Your task to perform on an android device: toggle data saver in the chrome app Image 0: 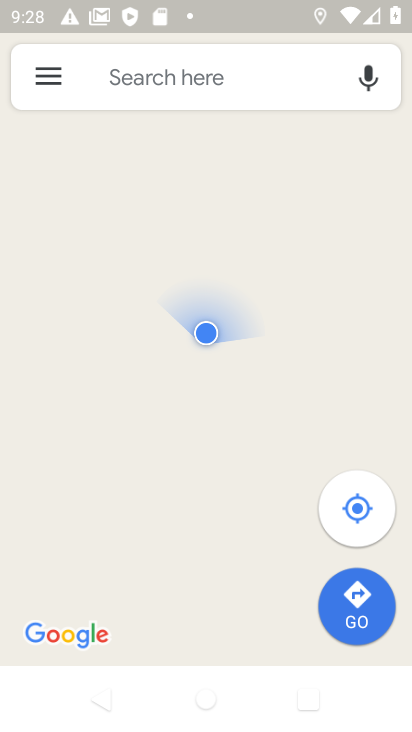
Step 0: press home button
Your task to perform on an android device: toggle data saver in the chrome app Image 1: 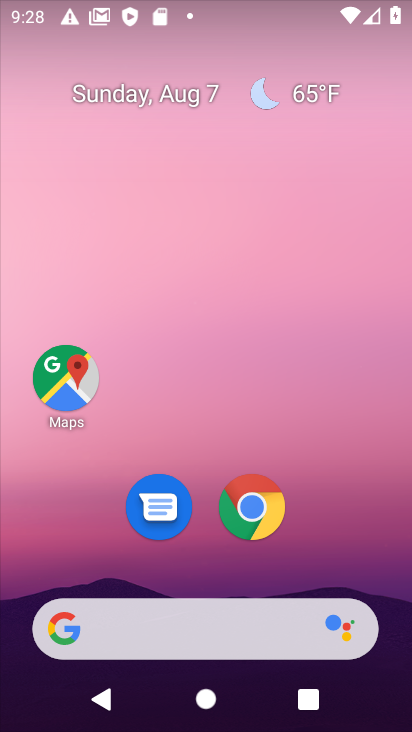
Step 1: drag from (367, 496) to (285, 123)
Your task to perform on an android device: toggle data saver in the chrome app Image 2: 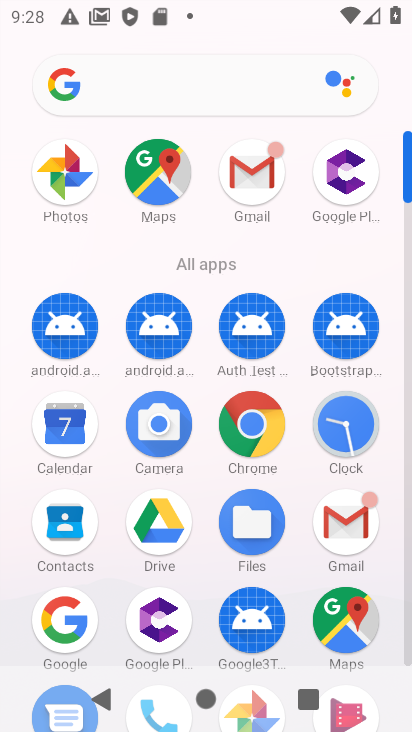
Step 2: click (249, 433)
Your task to perform on an android device: toggle data saver in the chrome app Image 3: 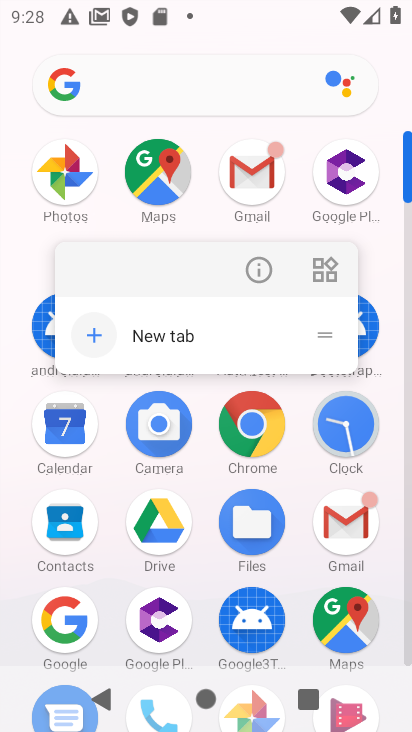
Step 3: click (249, 433)
Your task to perform on an android device: toggle data saver in the chrome app Image 4: 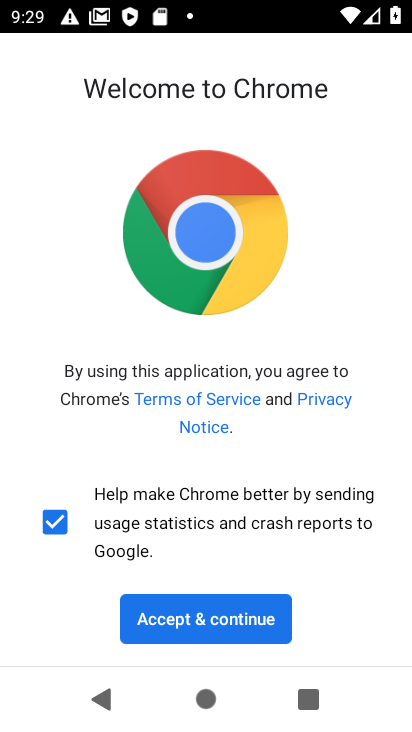
Step 4: click (251, 621)
Your task to perform on an android device: toggle data saver in the chrome app Image 5: 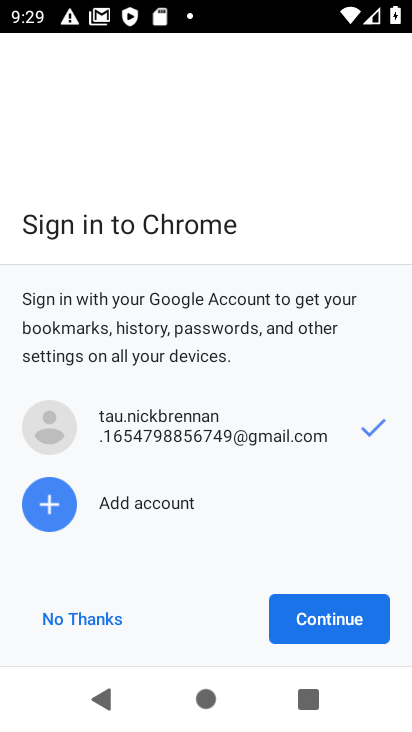
Step 5: click (352, 630)
Your task to perform on an android device: toggle data saver in the chrome app Image 6: 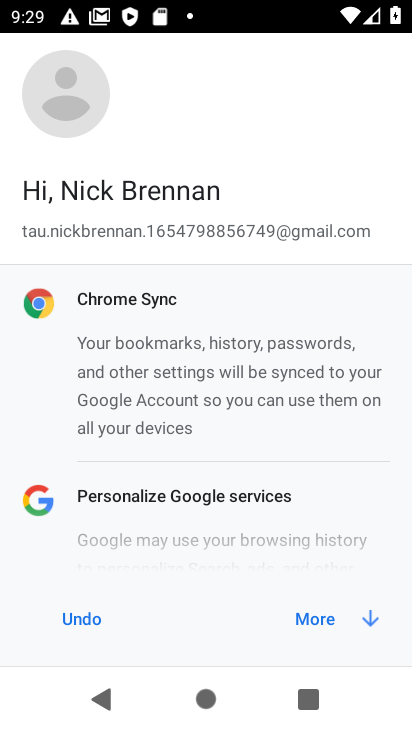
Step 6: click (352, 627)
Your task to perform on an android device: toggle data saver in the chrome app Image 7: 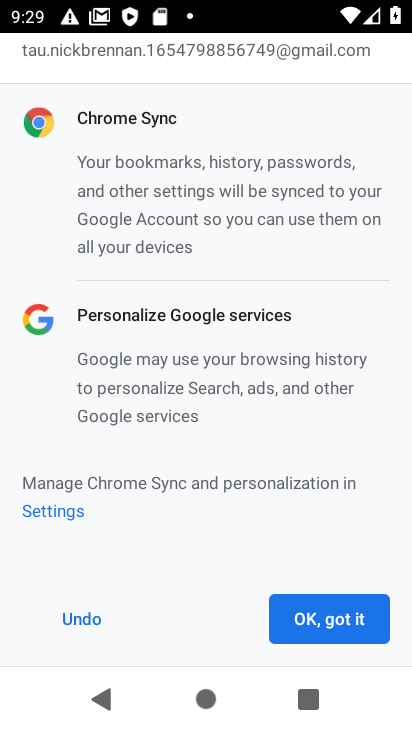
Step 7: click (352, 627)
Your task to perform on an android device: toggle data saver in the chrome app Image 8: 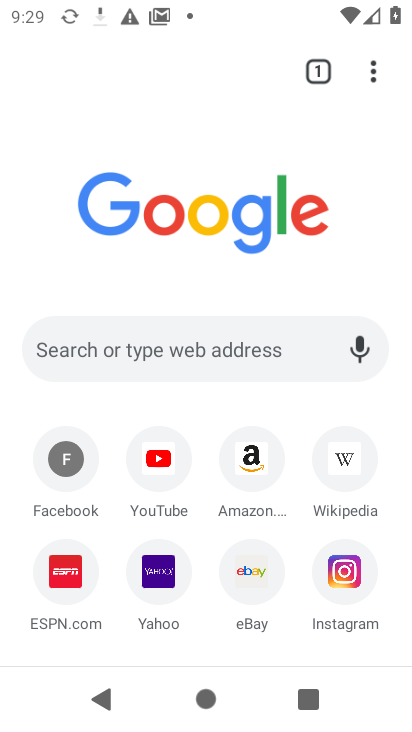
Step 8: drag from (376, 67) to (171, 517)
Your task to perform on an android device: toggle data saver in the chrome app Image 9: 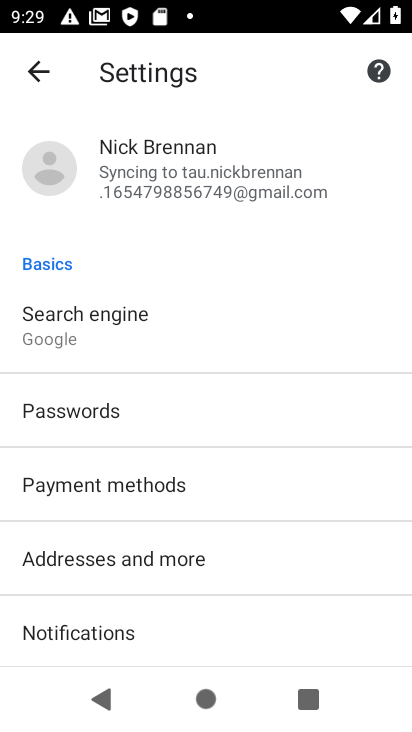
Step 9: drag from (287, 596) to (290, 173)
Your task to perform on an android device: toggle data saver in the chrome app Image 10: 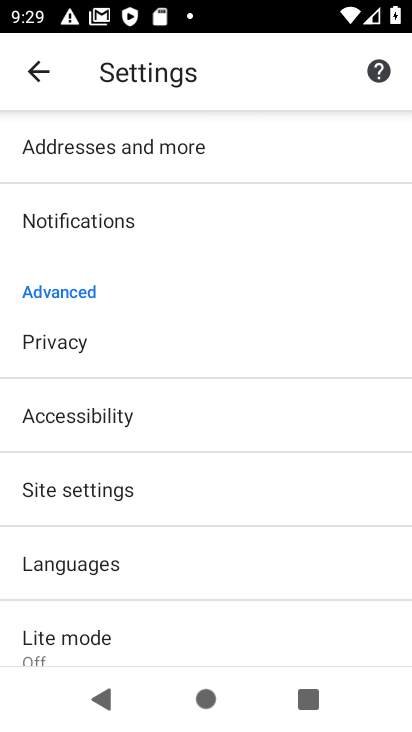
Step 10: click (101, 650)
Your task to perform on an android device: toggle data saver in the chrome app Image 11: 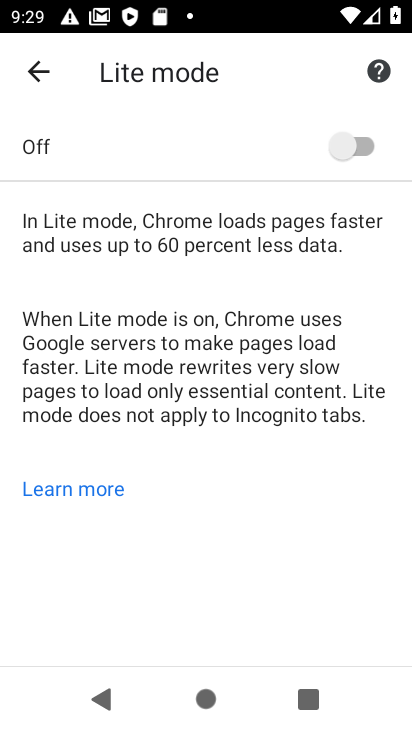
Step 11: click (353, 132)
Your task to perform on an android device: toggle data saver in the chrome app Image 12: 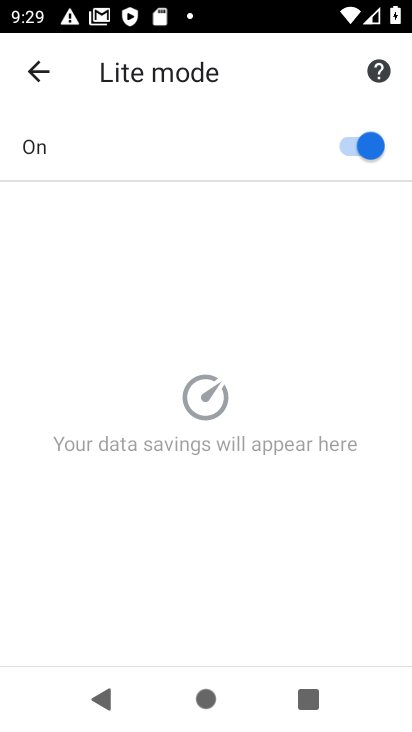
Step 12: task complete